Your task to perform on an android device: turn off location Image 0: 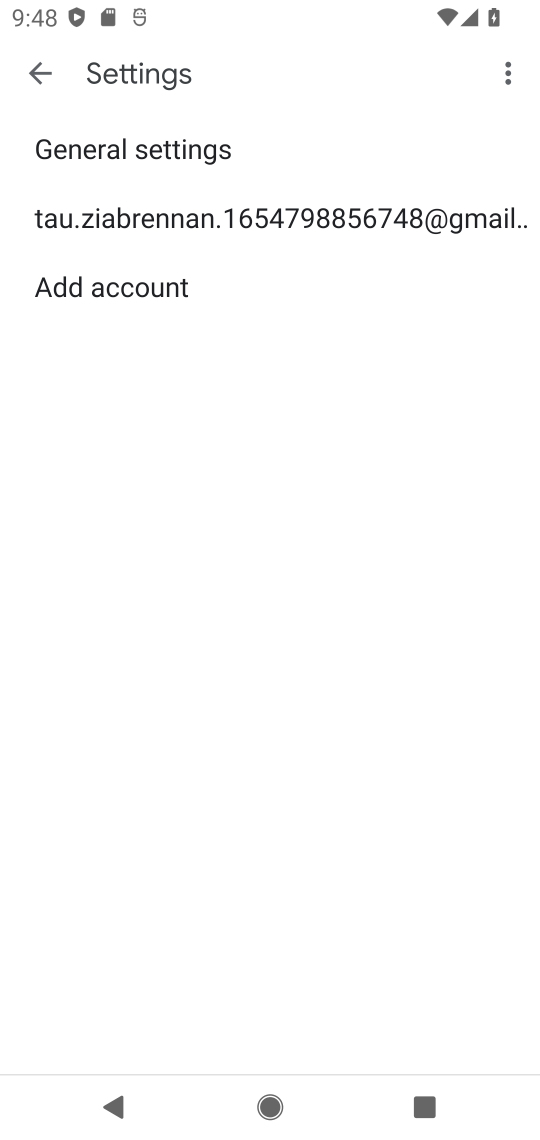
Step 0: press home button
Your task to perform on an android device: turn off location Image 1: 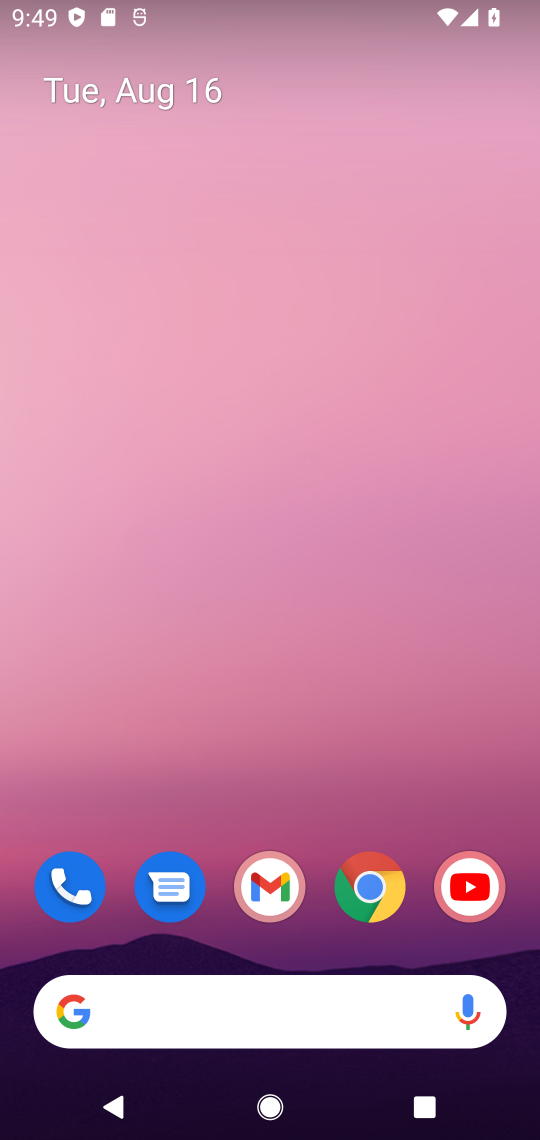
Step 1: drag from (427, 806) to (452, 129)
Your task to perform on an android device: turn off location Image 2: 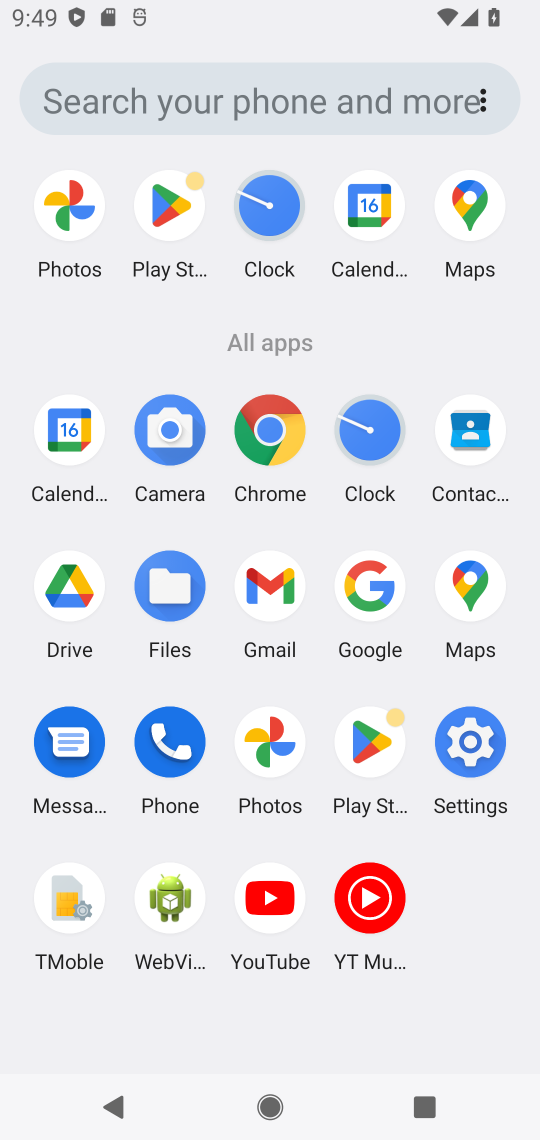
Step 2: click (459, 757)
Your task to perform on an android device: turn off location Image 3: 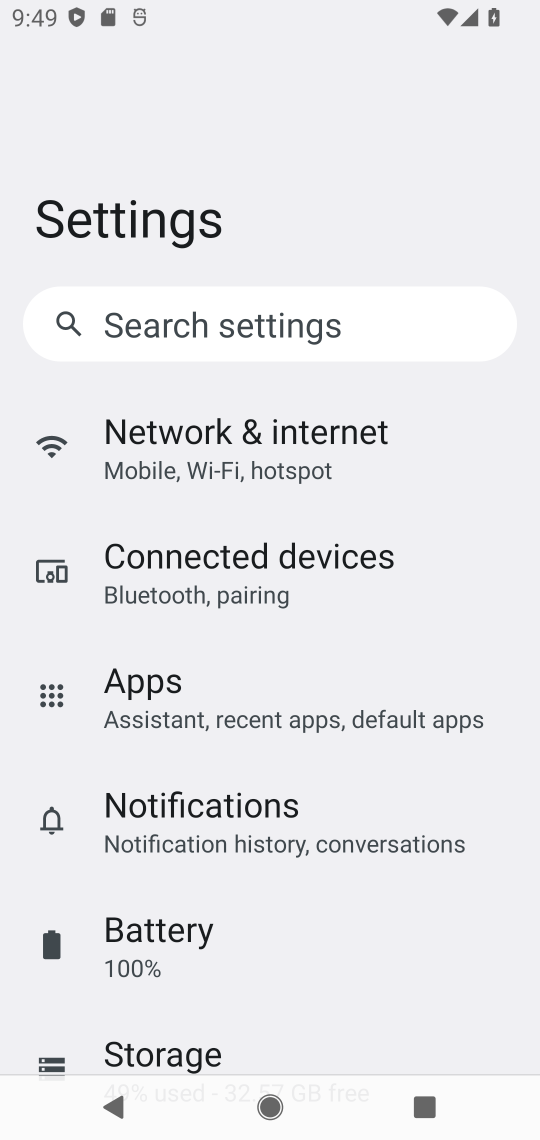
Step 3: drag from (432, 986) to (457, 842)
Your task to perform on an android device: turn off location Image 4: 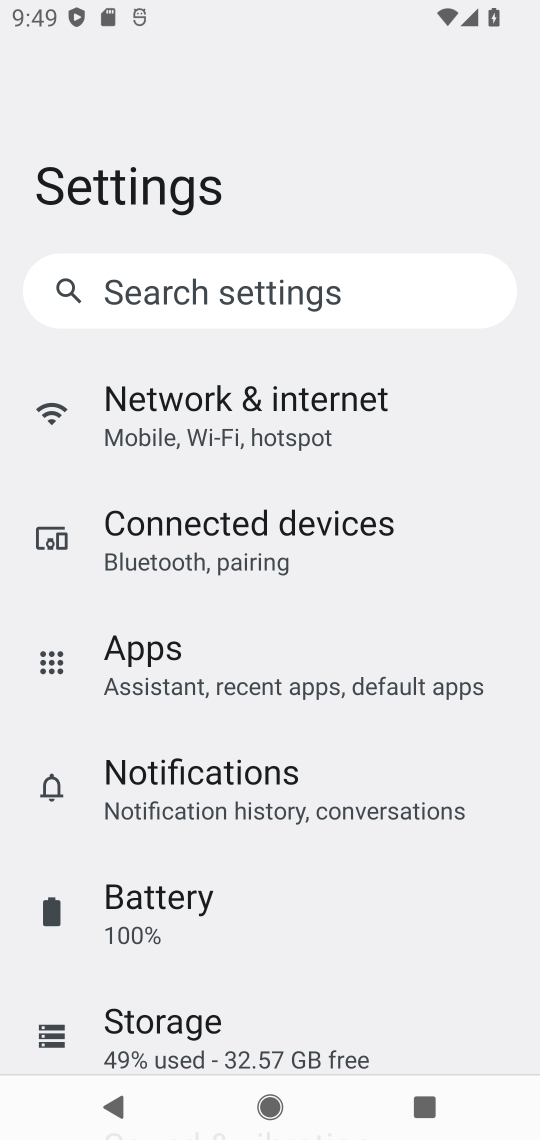
Step 4: drag from (478, 1010) to (480, 783)
Your task to perform on an android device: turn off location Image 5: 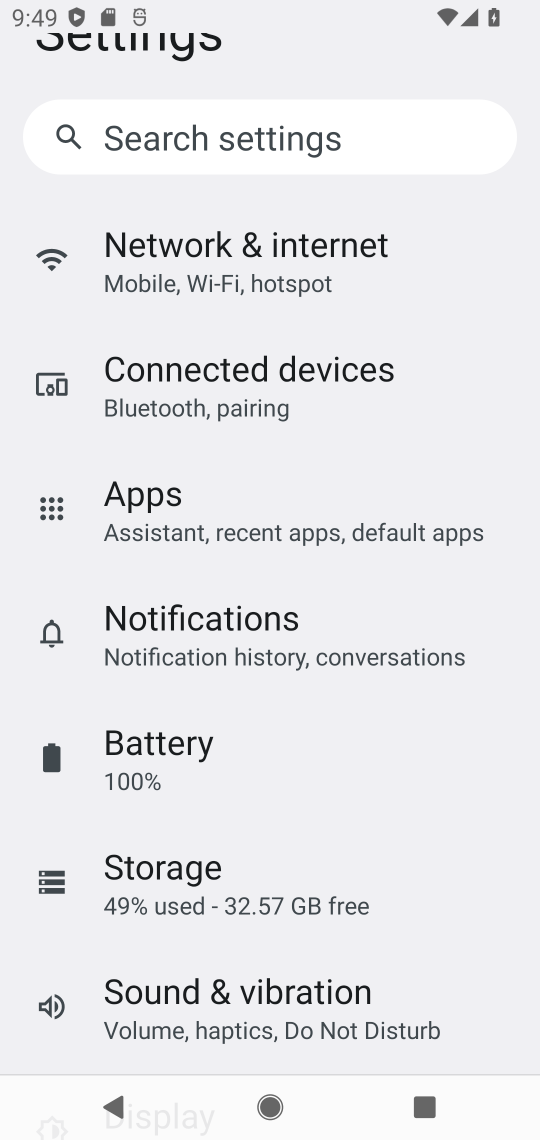
Step 5: drag from (496, 976) to (481, 767)
Your task to perform on an android device: turn off location Image 6: 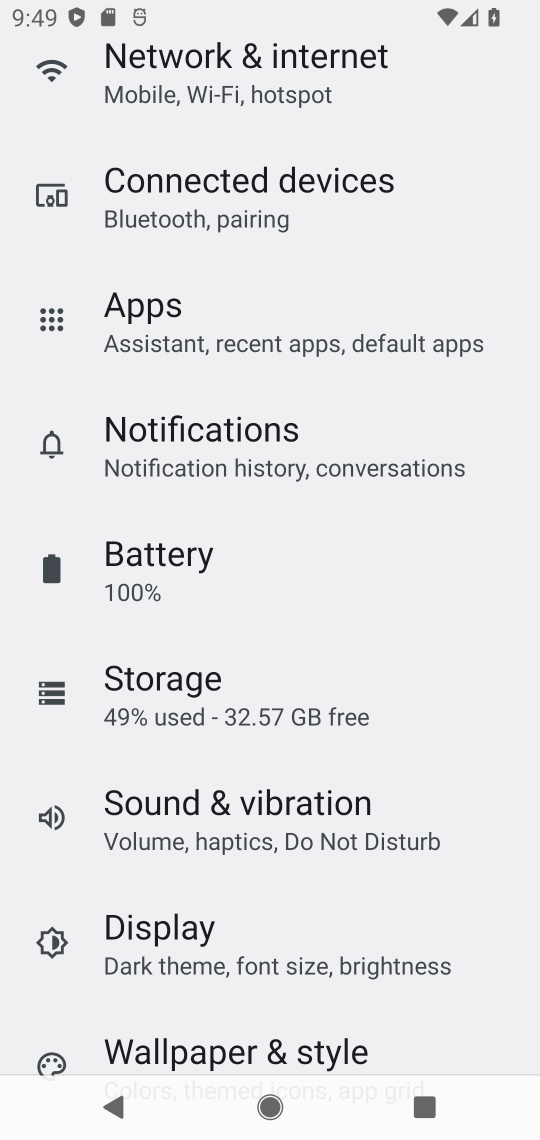
Step 6: drag from (458, 987) to (467, 724)
Your task to perform on an android device: turn off location Image 7: 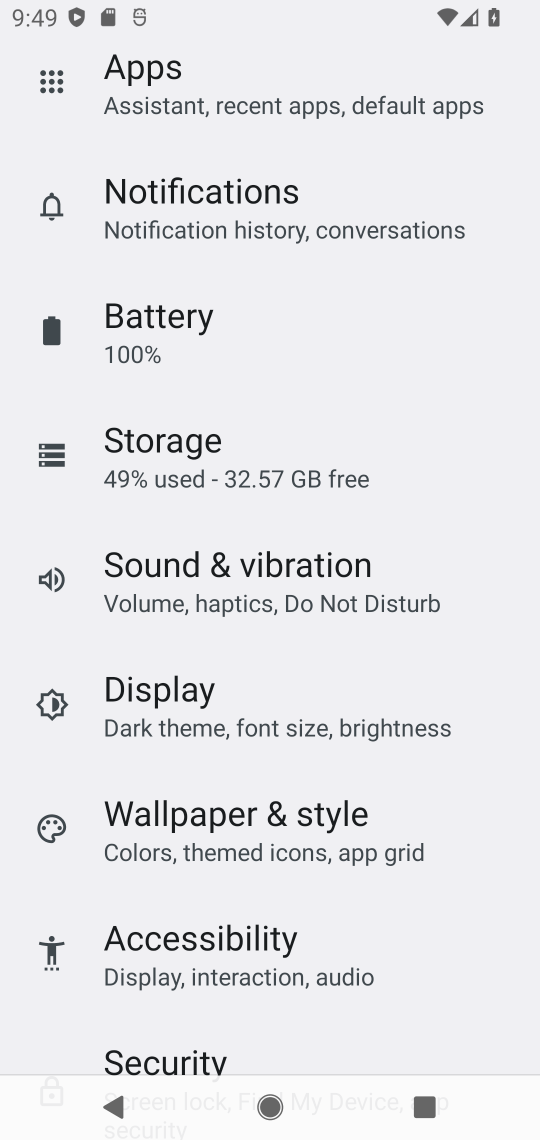
Step 7: drag from (474, 983) to (487, 736)
Your task to perform on an android device: turn off location Image 8: 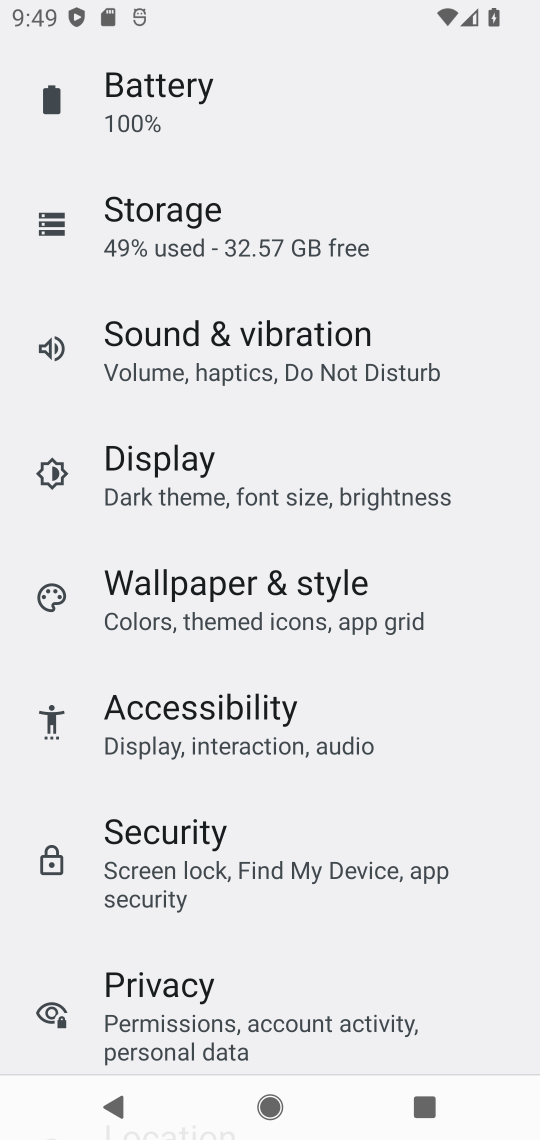
Step 8: drag from (446, 918) to (459, 756)
Your task to perform on an android device: turn off location Image 9: 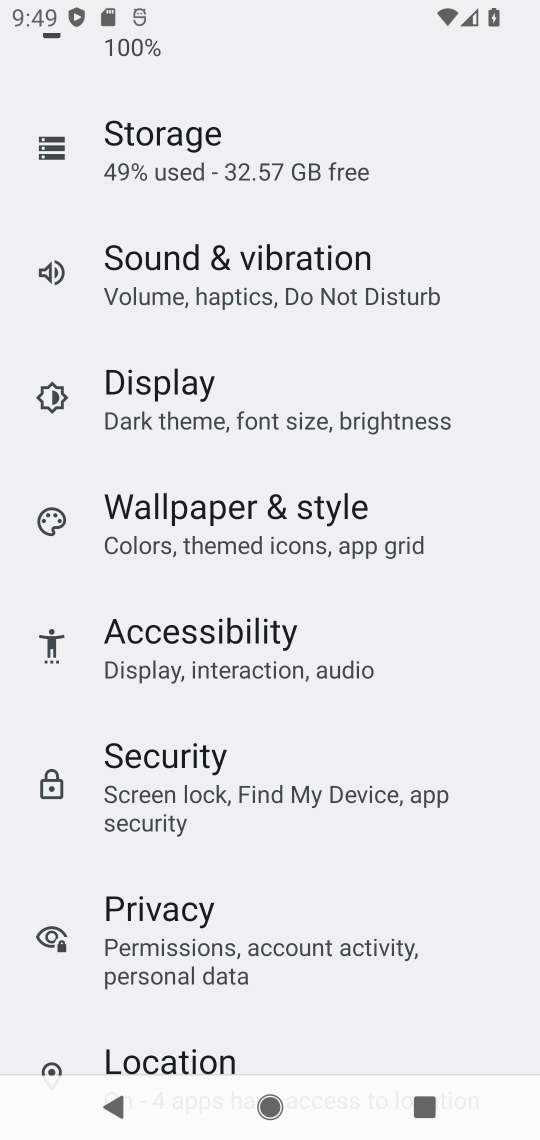
Step 9: drag from (448, 1022) to (454, 769)
Your task to perform on an android device: turn off location Image 10: 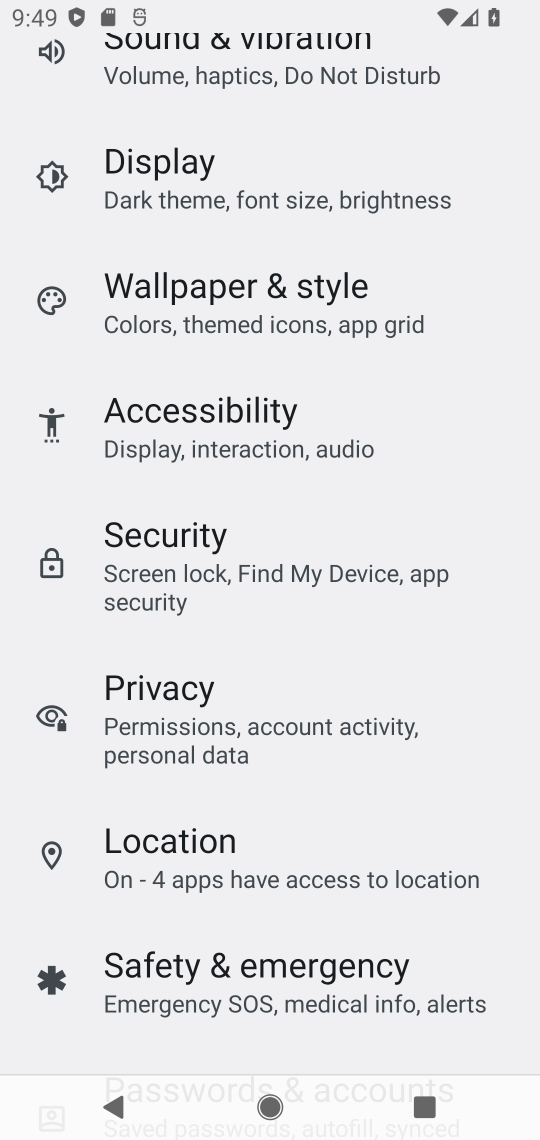
Step 10: click (451, 873)
Your task to perform on an android device: turn off location Image 11: 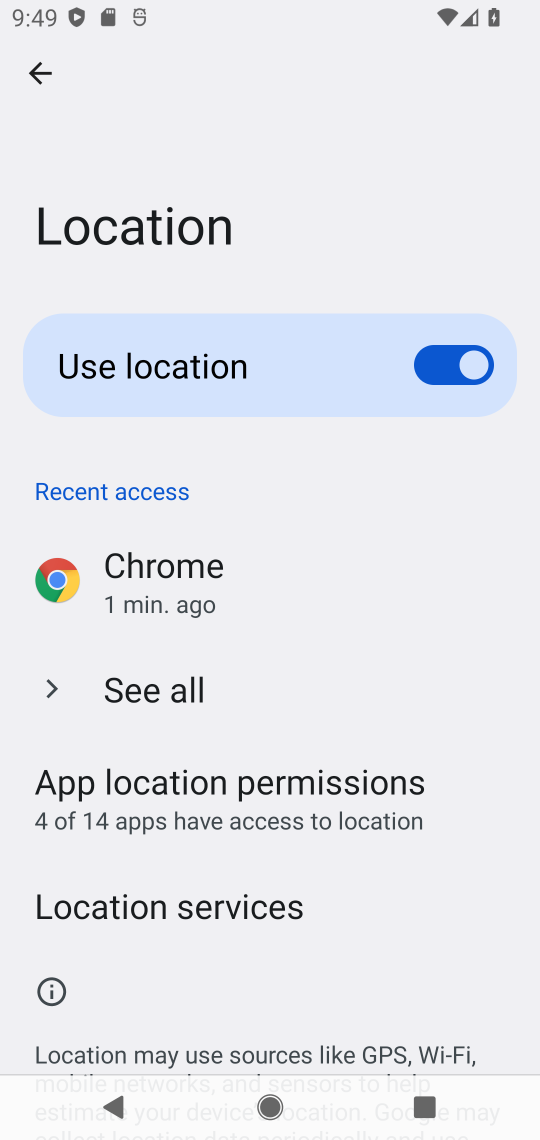
Step 11: click (466, 364)
Your task to perform on an android device: turn off location Image 12: 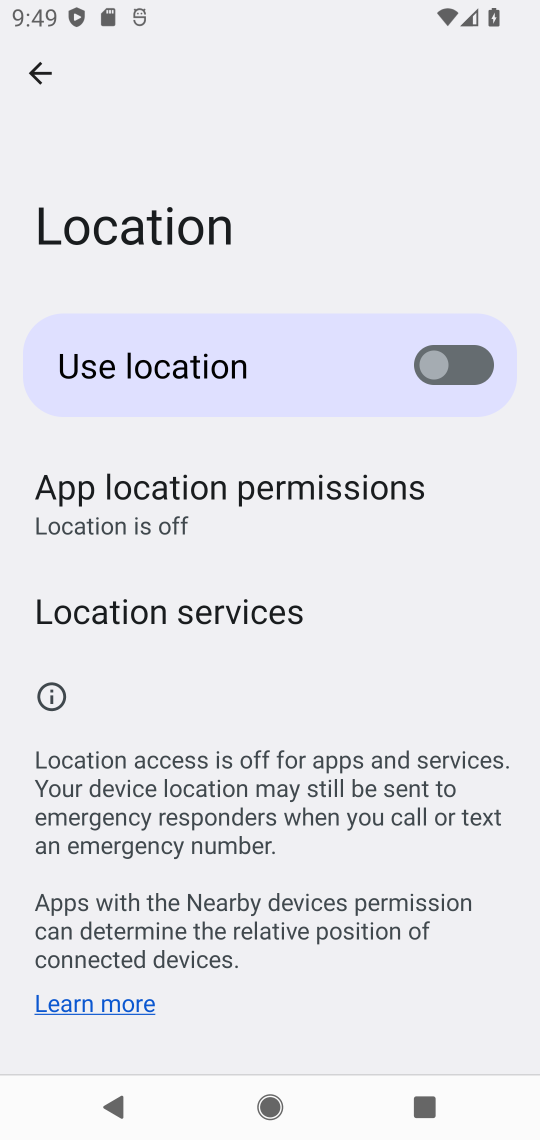
Step 12: task complete